Your task to perform on an android device: Clear all items from cart on walmart. Image 0: 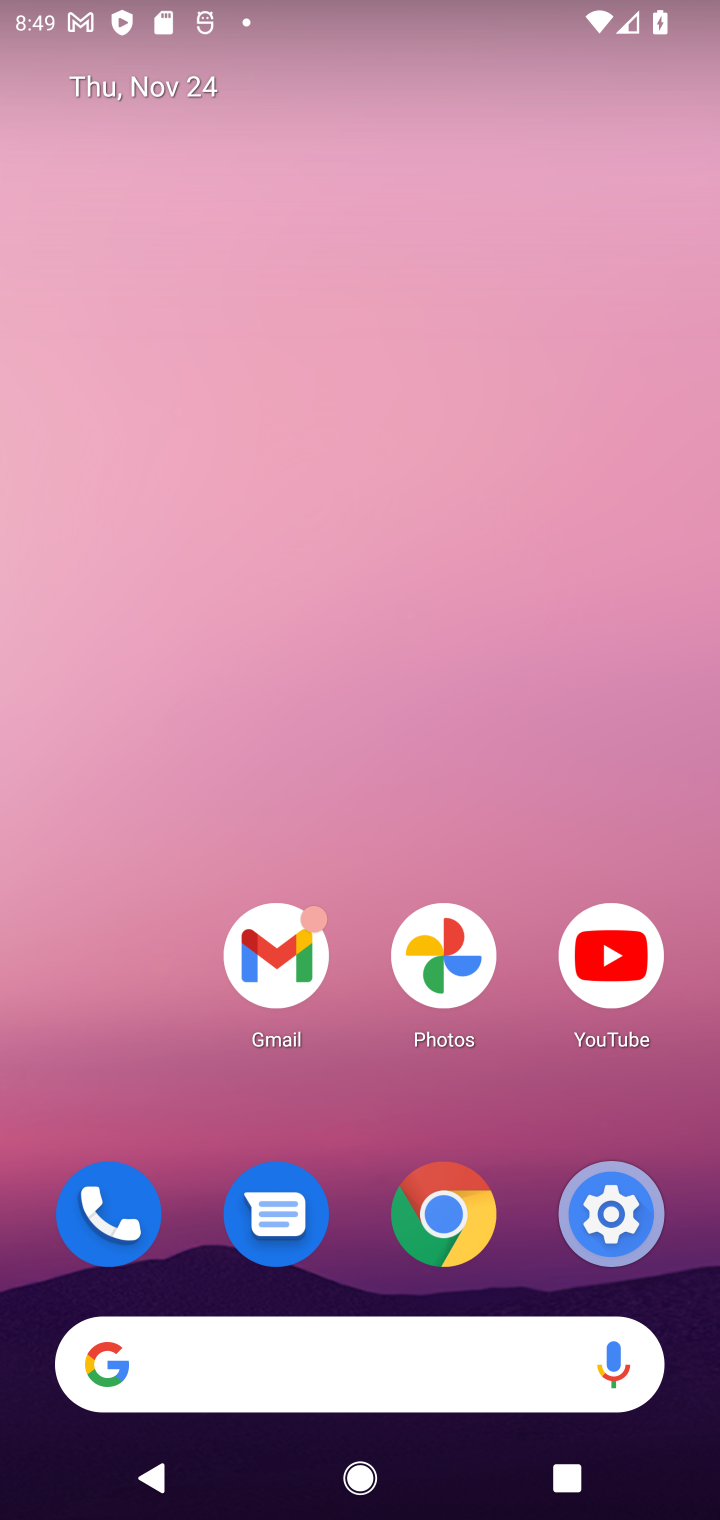
Step 0: click (346, 1338)
Your task to perform on an android device: Clear all items from cart on walmart. Image 1: 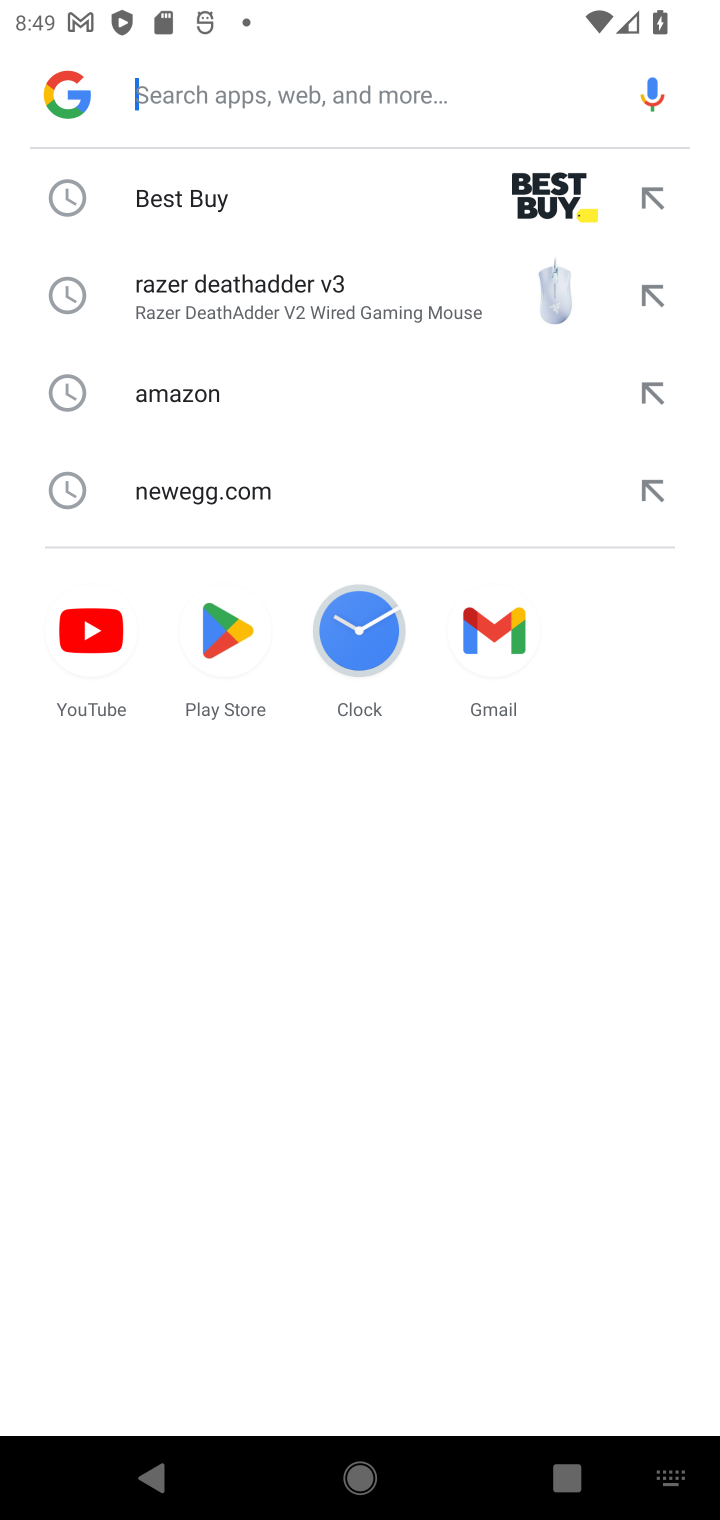
Step 1: type "walmart"
Your task to perform on an android device: Clear all items from cart on walmart. Image 2: 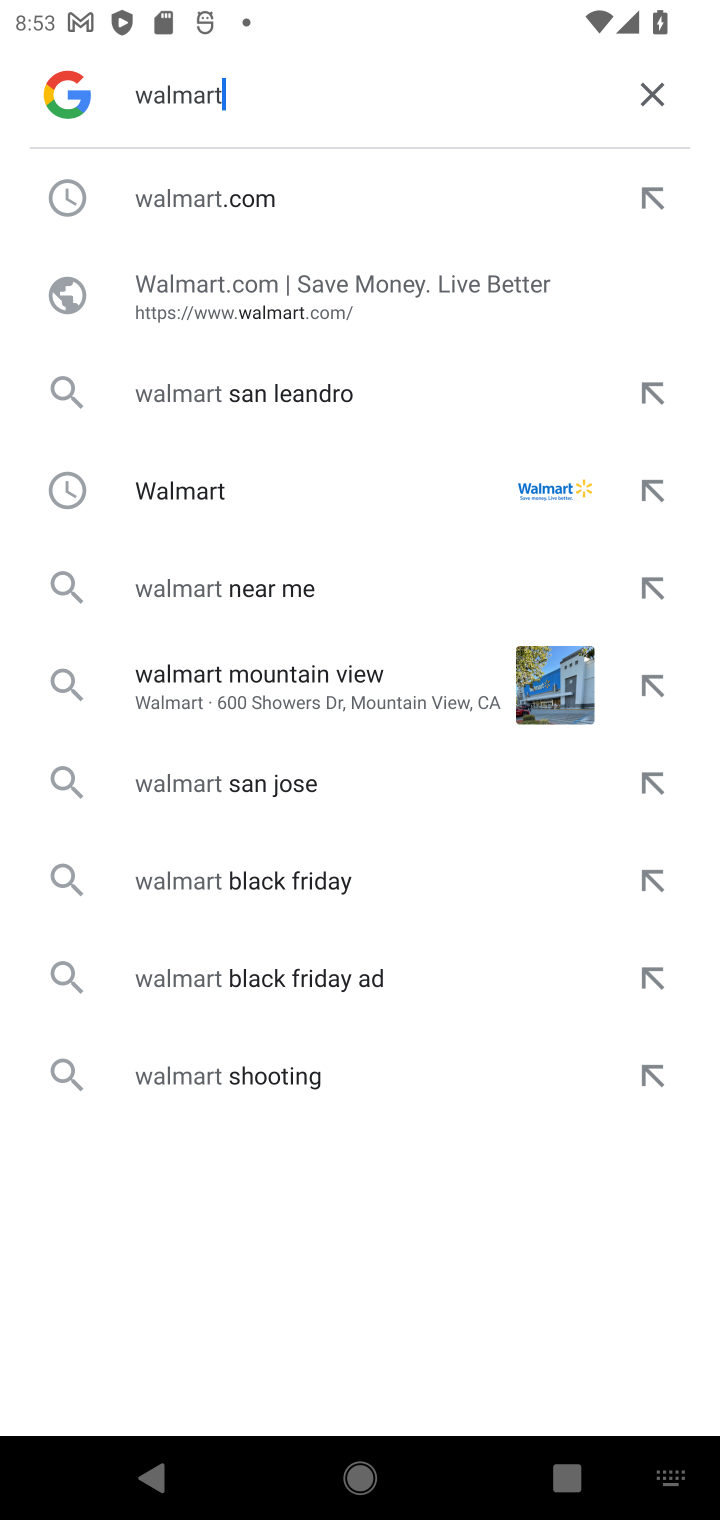
Step 2: click (239, 180)
Your task to perform on an android device: Clear all items from cart on walmart. Image 3: 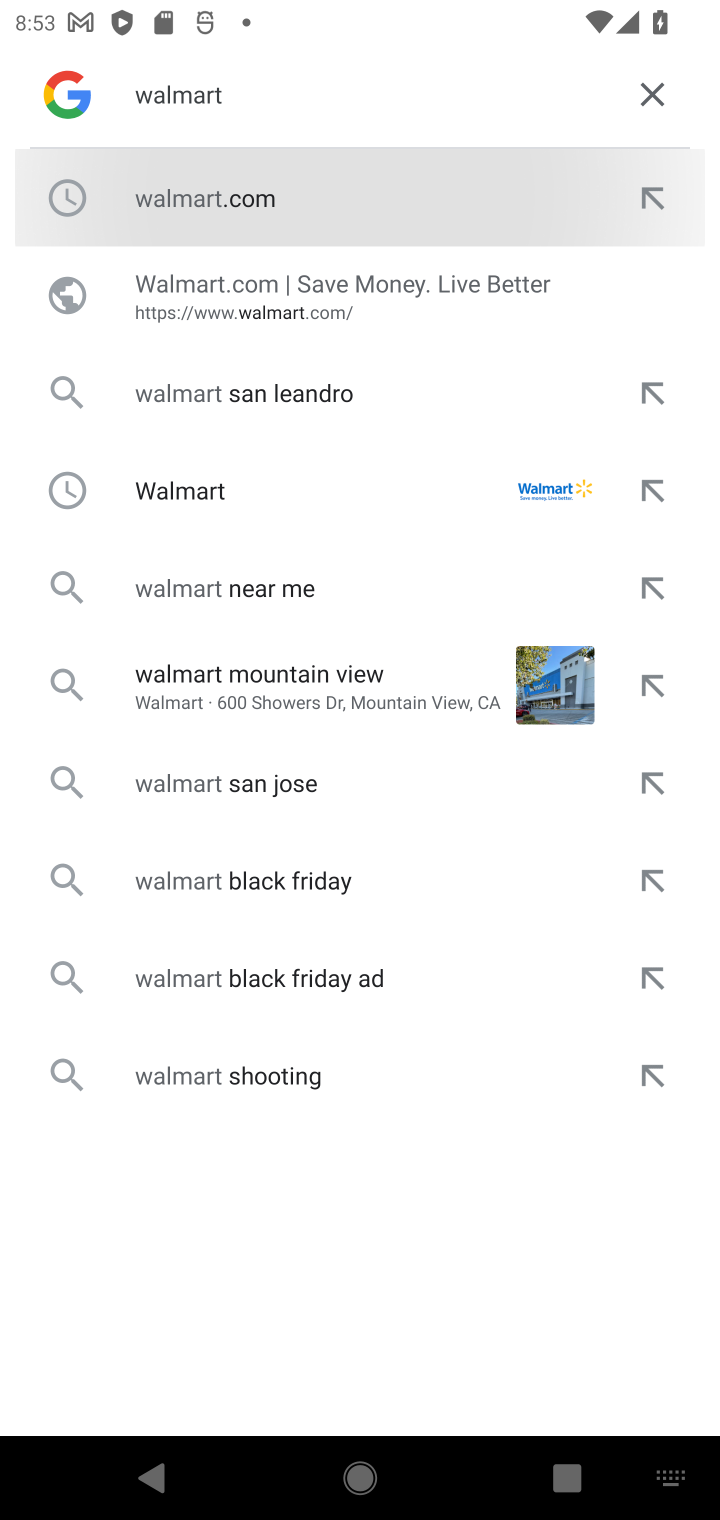
Step 3: task complete